Your task to perform on an android device: see tabs open on other devices in the chrome app Image 0: 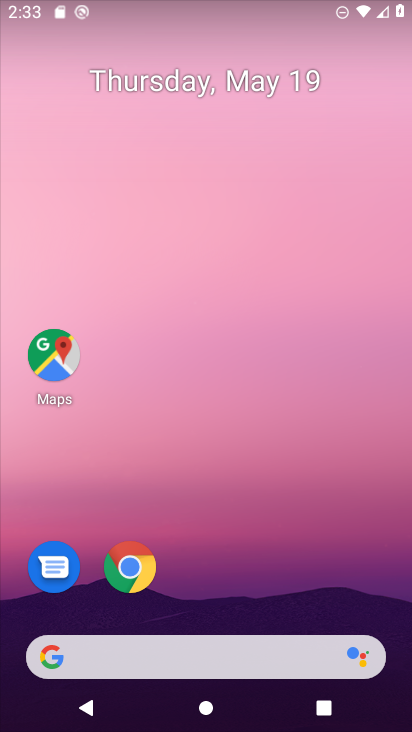
Step 0: click (132, 552)
Your task to perform on an android device: see tabs open on other devices in the chrome app Image 1: 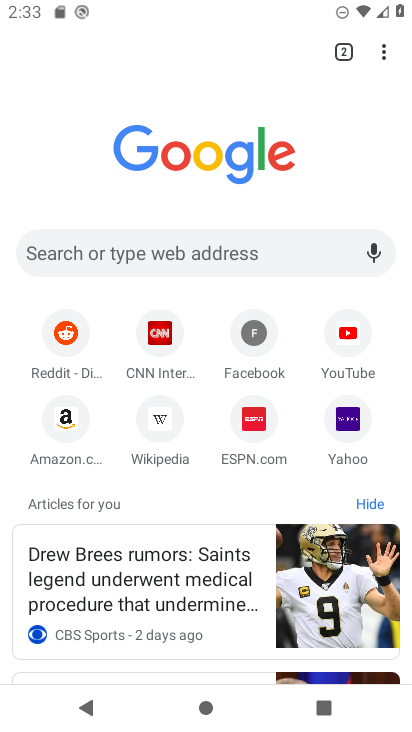
Step 1: click (383, 51)
Your task to perform on an android device: see tabs open on other devices in the chrome app Image 2: 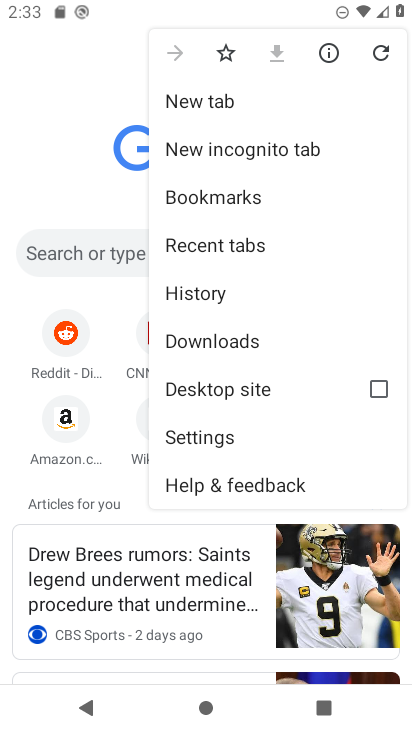
Step 2: click (262, 247)
Your task to perform on an android device: see tabs open on other devices in the chrome app Image 3: 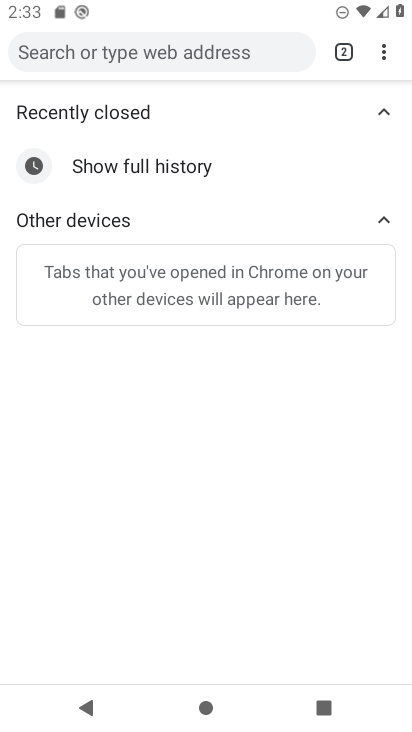
Step 3: task complete